Your task to perform on an android device: check data usage Image 0: 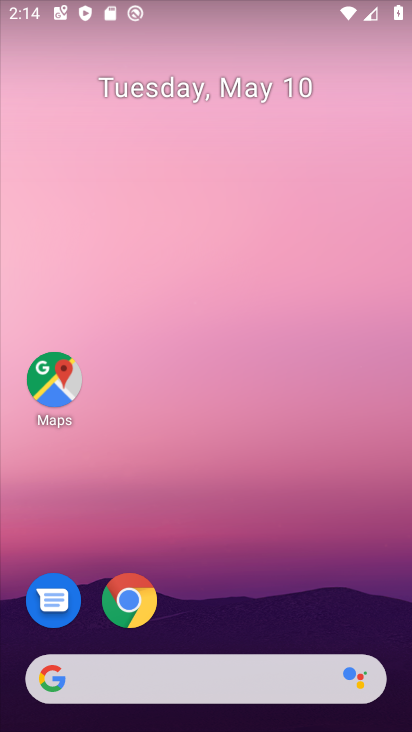
Step 0: drag from (265, 642) to (248, 191)
Your task to perform on an android device: check data usage Image 1: 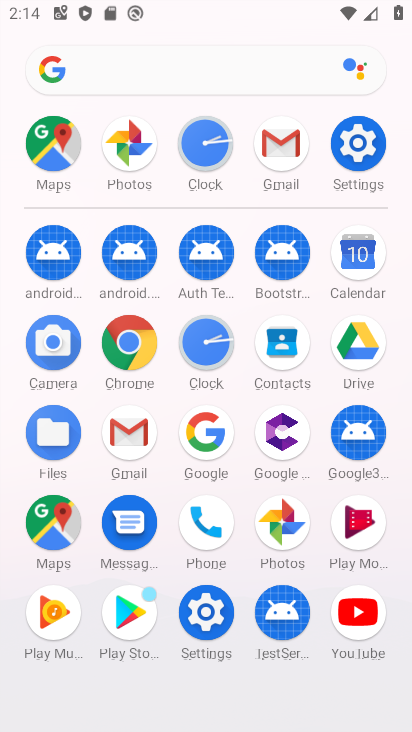
Step 1: click (346, 151)
Your task to perform on an android device: check data usage Image 2: 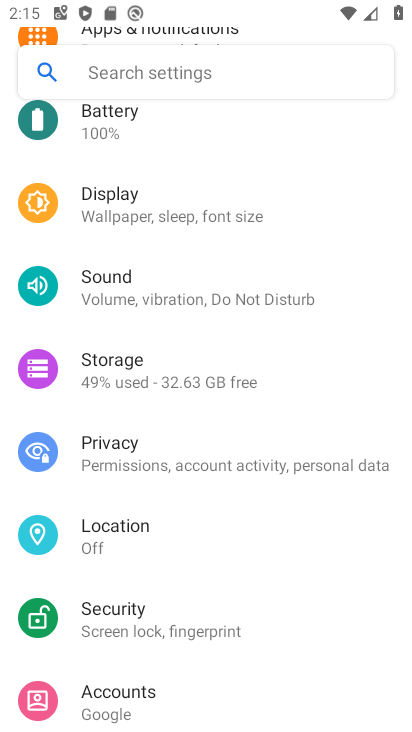
Step 2: drag from (230, 310) to (141, 713)
Your task to perform on an android device: check data usage Image 3: 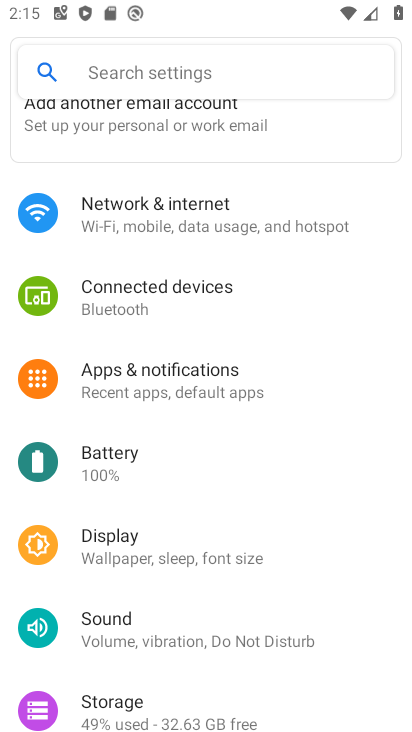
Step 3: drag from (167, 288) to (149, 480)
Your task to perform on an android device: check data usage Image 4: 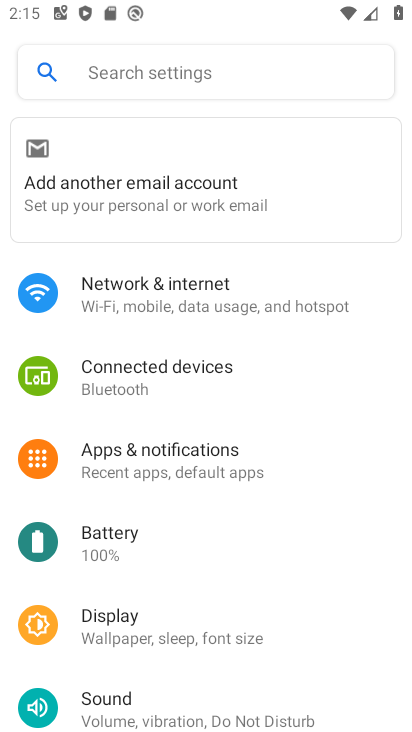
Step 4: click (203, 300)
Your task to perform on an android device: check data usage Image 5: 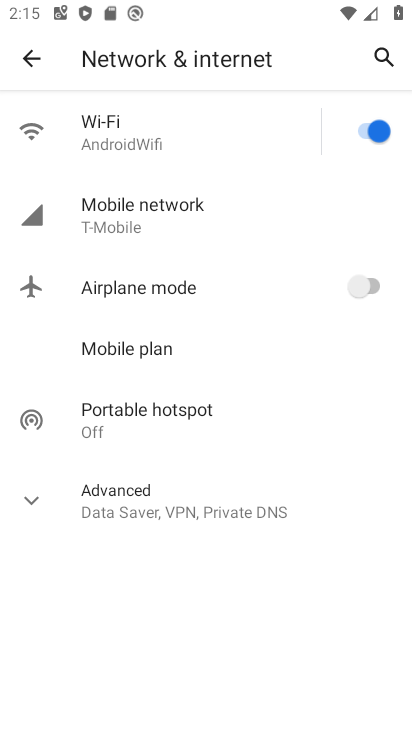
Step 5: click (189, 227)
Your task to perform on an android device: check data usage Image 6: 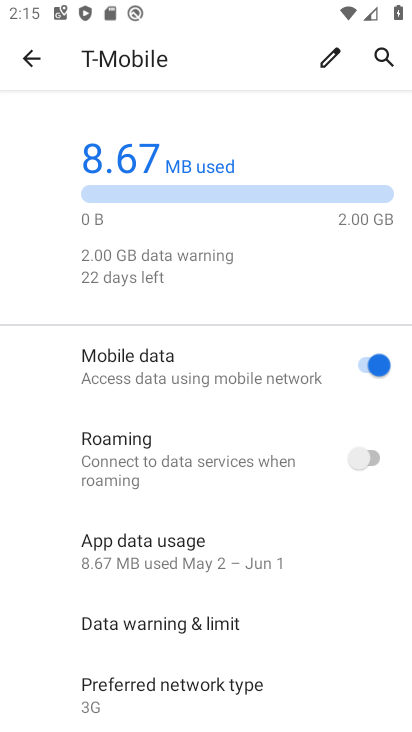
Step 6: click (243, 522)
Your task to perform on an android device: check data usage Image 7: 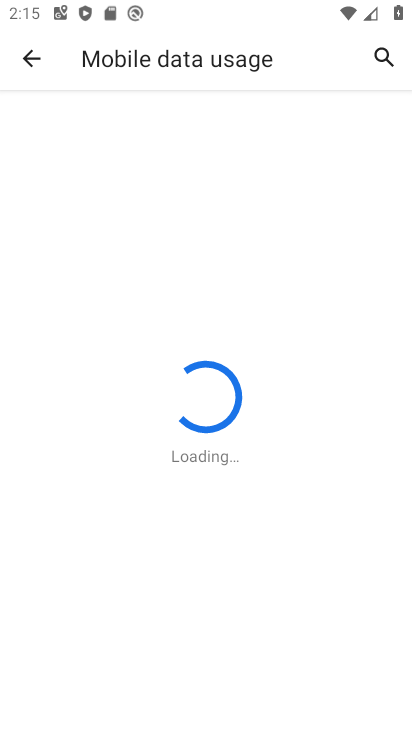
Step 7: task complete